Your task to perform on an android device: Go to network settings Image 0: 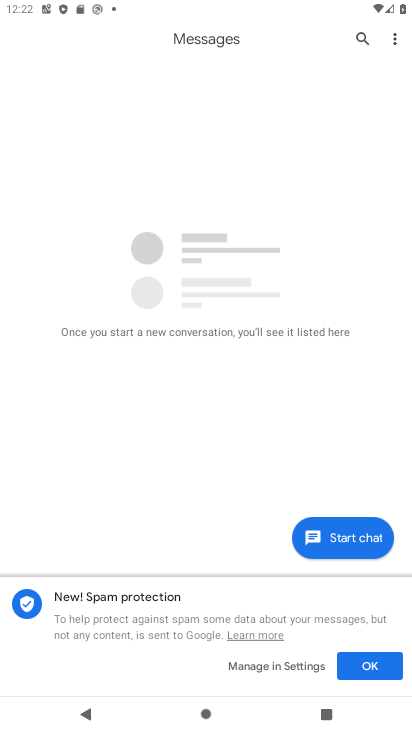
Step 0: press home button
Your task to perform on an android device: Go to network settings Image 1: 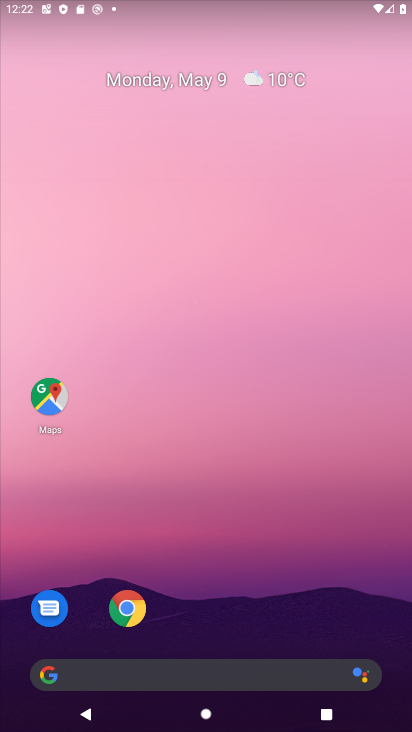
Step 1: drag from (253, 609) to (237, 148)
Your task to perform on an android device: Go to network settings Image 2: 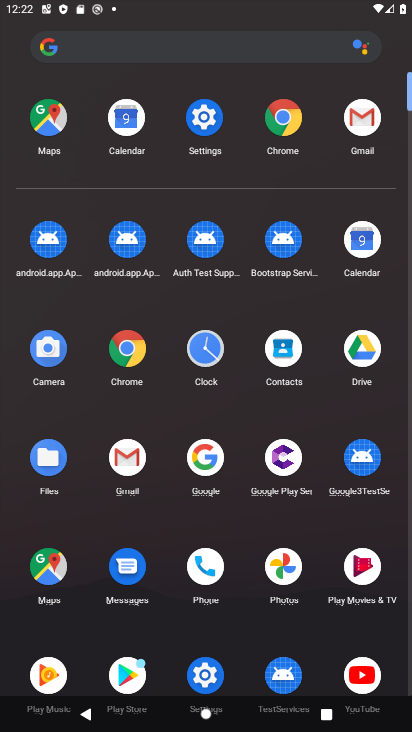
Step 2: click (202, 151)
Your task to perform on an android device: Go to network settings Image 3: 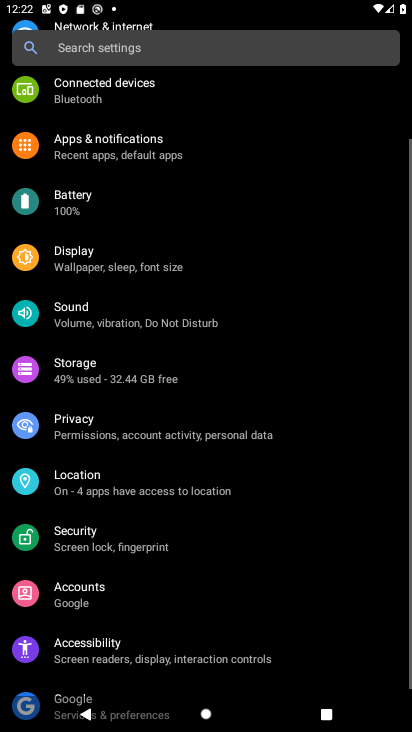
Step 3: drag from (182, 138) to (184, 691)
Your task to perform on an android device: Go to network settings Image 4: 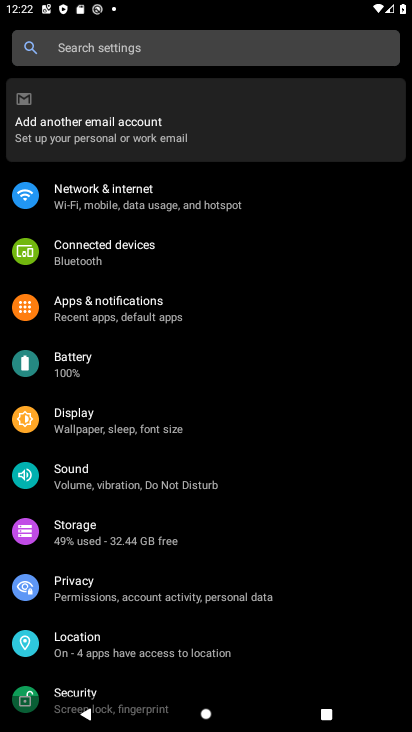
Step 4: click (174, 200)
Your task to perform on an android device: Go to network settings Image 5: 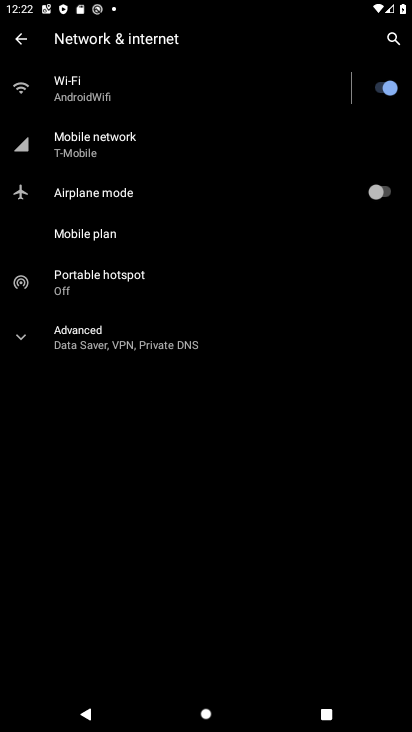
Step 5: task complete